Your task to perform on an android device: Add "corsair k70" to the cart on walmart, then select checkout. Image 0: 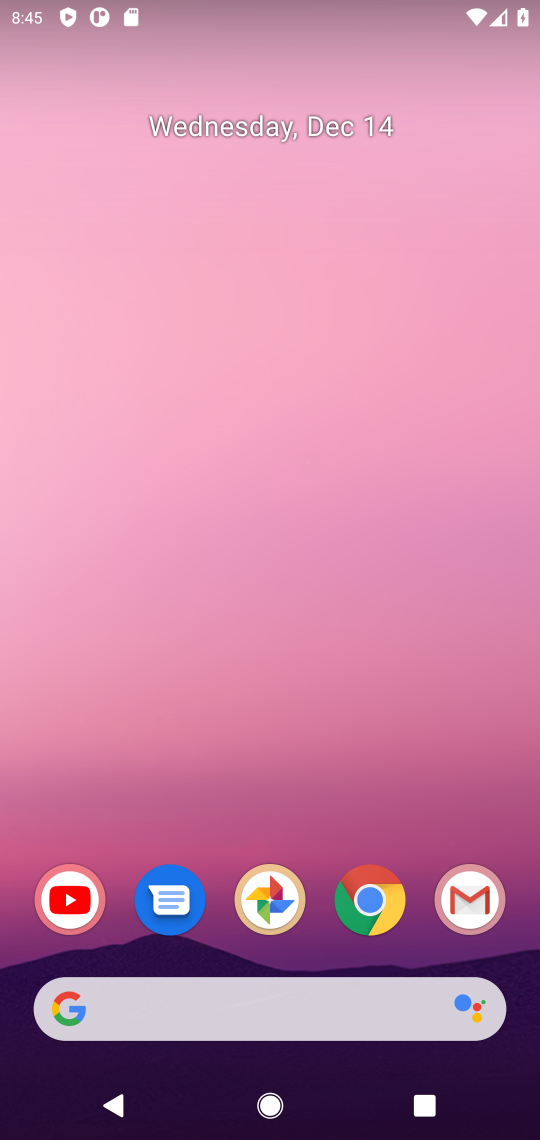
Step 0: click (247, 1014)
Your task to perform on an android device: Add "corsair k70" to the cart on walmart, then select checkout. Image 1: 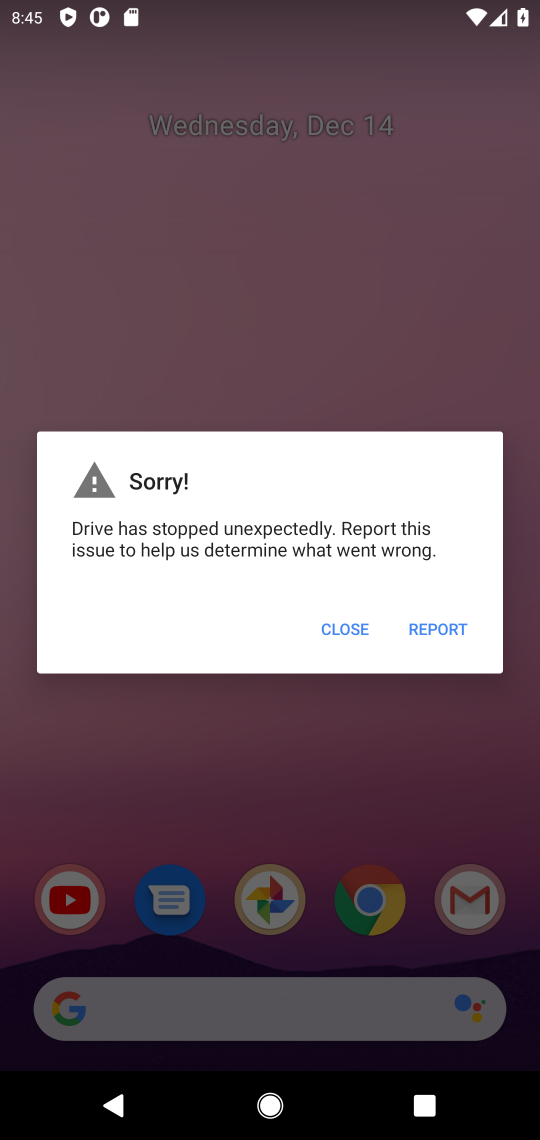
Step 1: click (319, 608)
Your task to perform on an android device: Add "corsair k70" to the cart on walmart, then select checkout. Image 2: 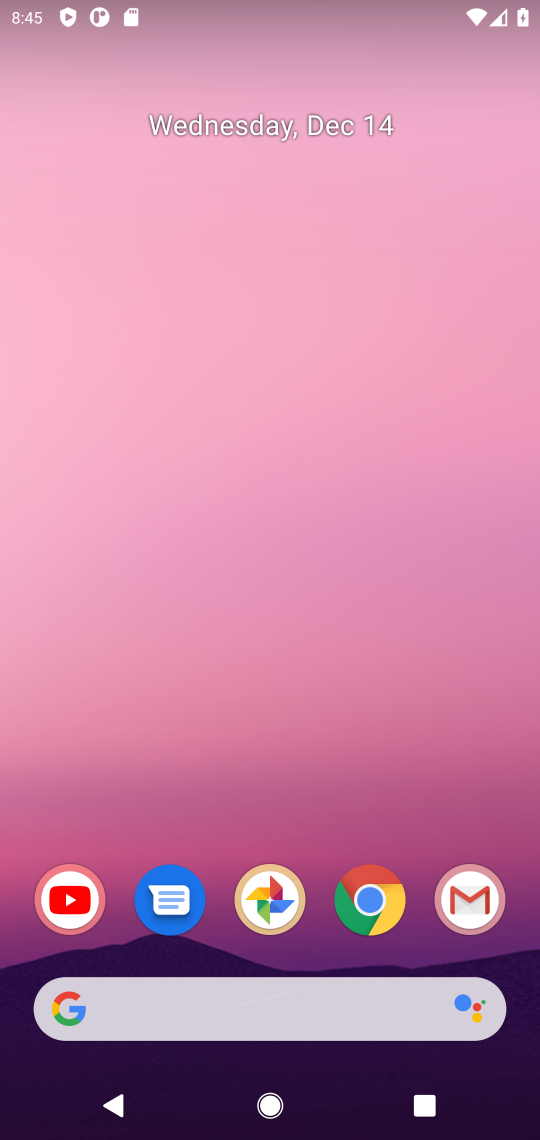
Step 2: click (288, 1026)
Your task to perform on an android device: Add "corsair k70" to the cart on walmart, then select checkout. Image 3: 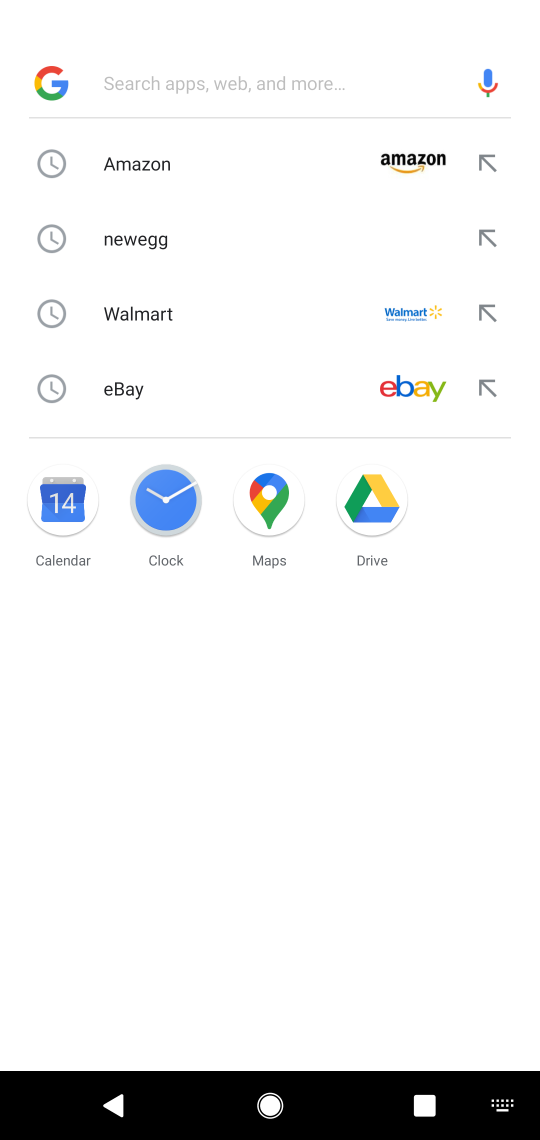
Step 3: click (137, 320)
Your task to perform on an android device: Add "corsair k70" to the cart on walmart, then select checkout. Image 4: 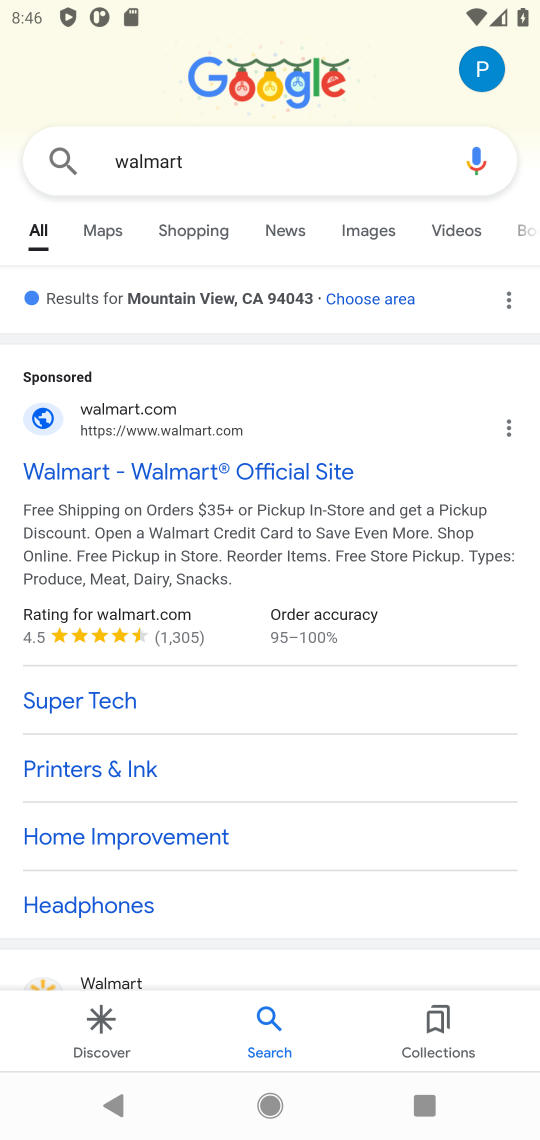
Step 4: click (165, 474)
Your task to perform on an android device: Add "corsair k70" to the cart on walmart, then select checkout. Image 5: 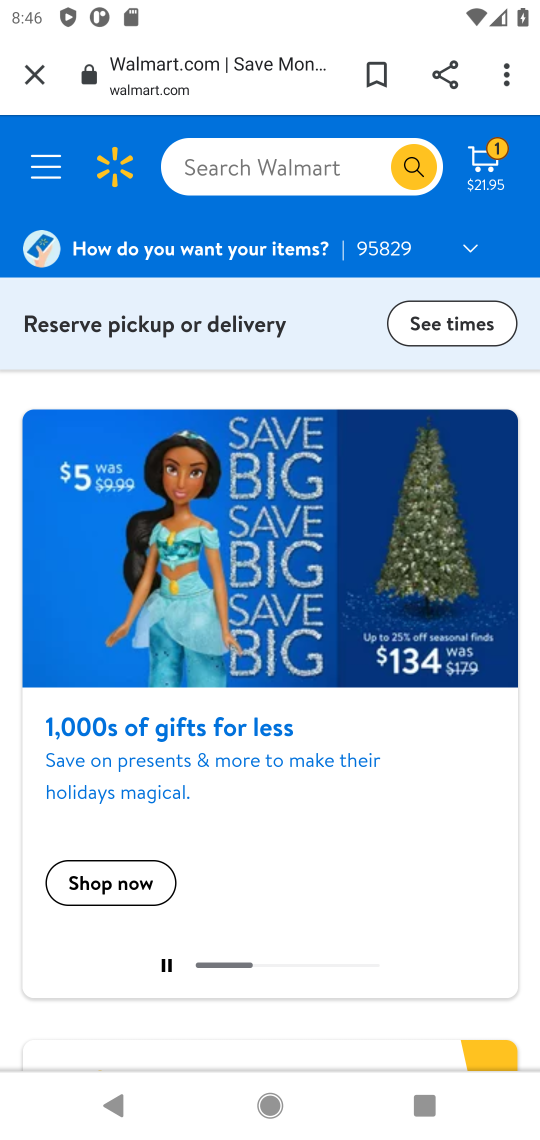
Step 5: click (243, 171)
Your task to perform on an android device: Add "corsair k70" to the cart on walmart, then select checkout. Image 6: 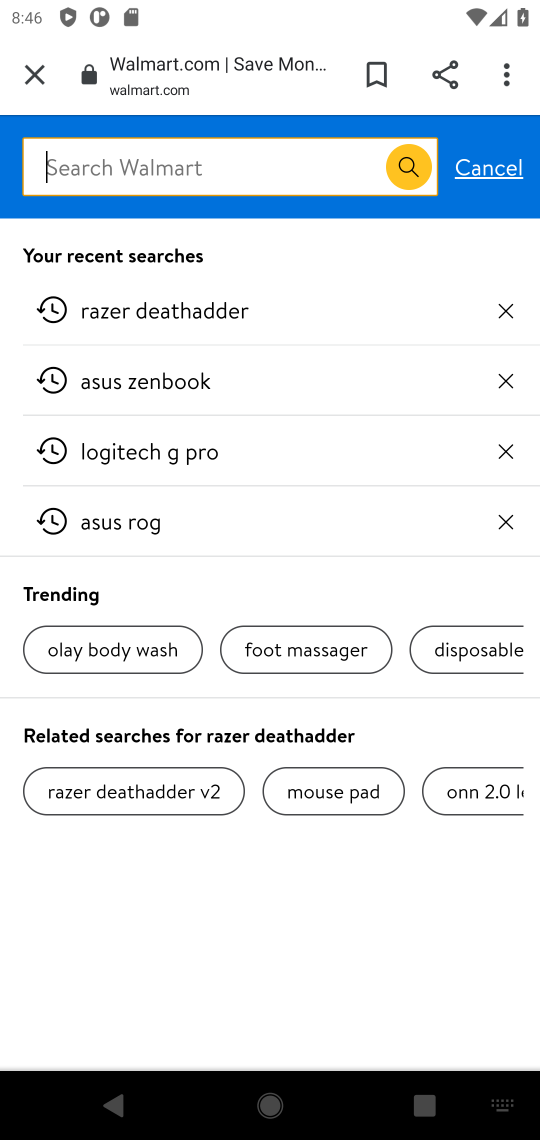
Step 6: type "corsair k70""
Your task to perform on an android device: Add "corsair k70" to the cart on walmart, then select checkout. Image 7: 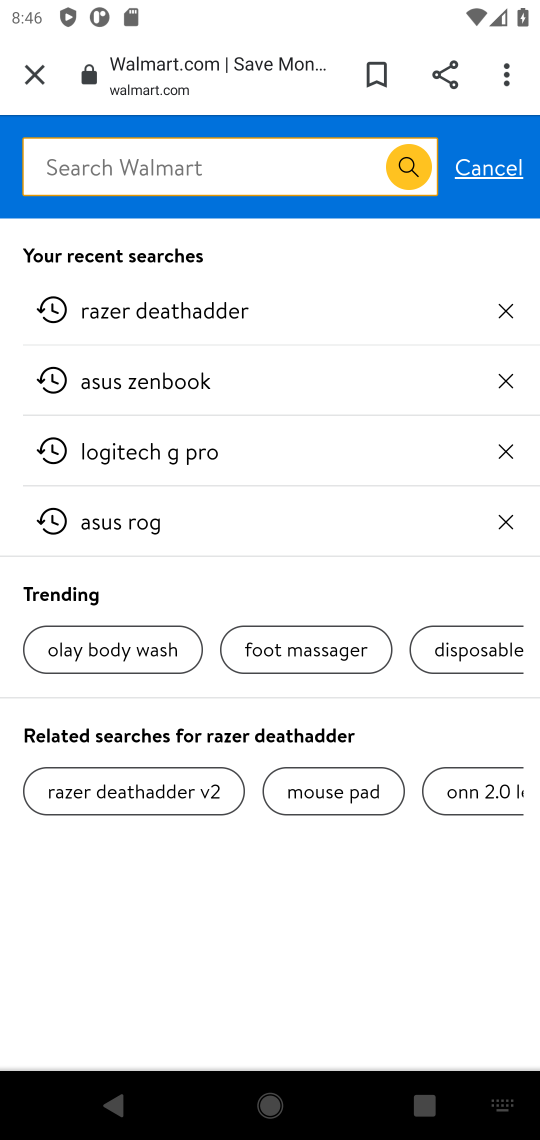
Step 7: type ""
Your task to perform on an android device: Add "corsair k70" to the cart on walmart, then select checkout. Image 8: 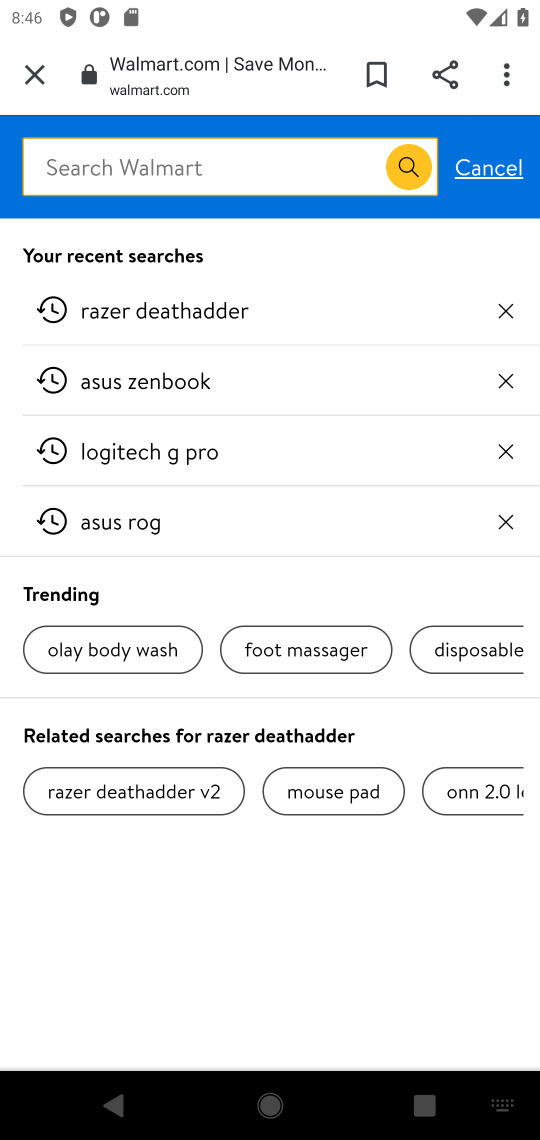
Step 8: drag from (342, 1003) to (340, 503)
Your task to perform on an android device: Add "corsair k70" to the cart on walmart, then select checkout. Image 9: 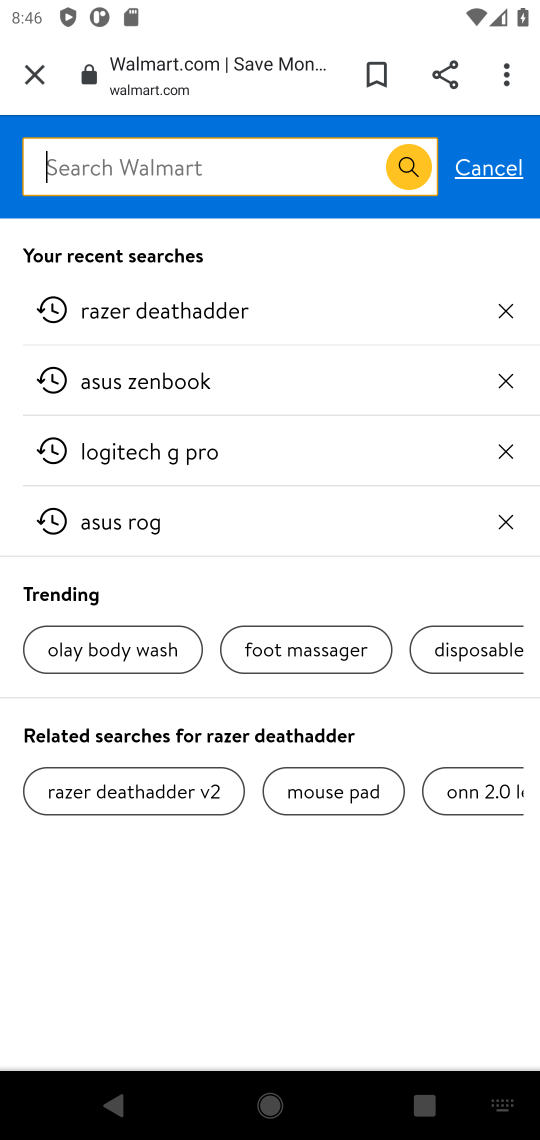
Step 9: click (179, 182)
Your task to perform on an android device: Add "corsair k70" to the cart on walmart, then select checkout. Image 10: 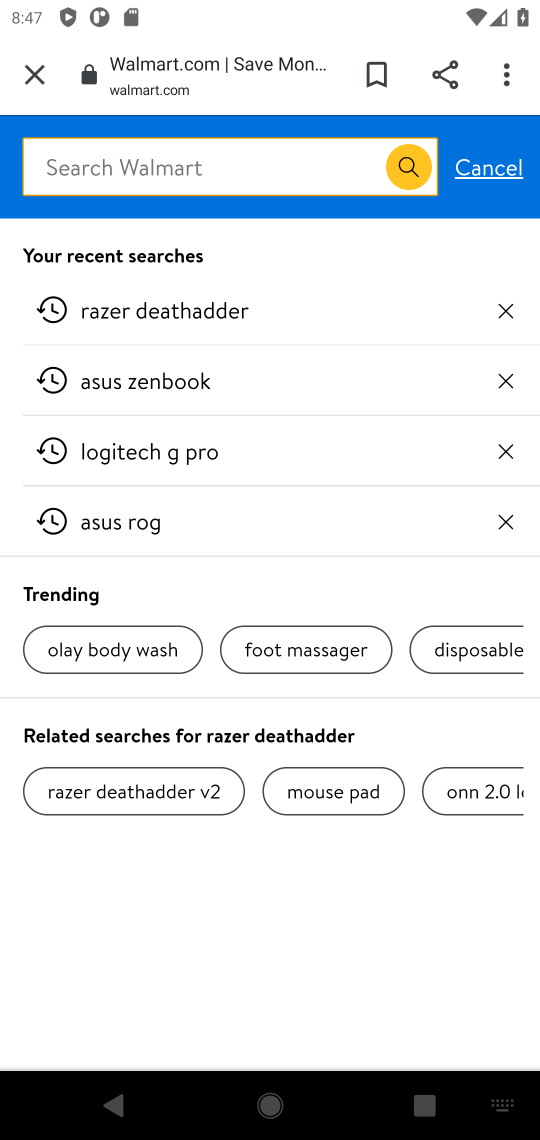
Step 10: type "corsair k70""
Your task to perform on an android device: Add "corsair k70" to the cart on walmart, then select checkout. Image 11: 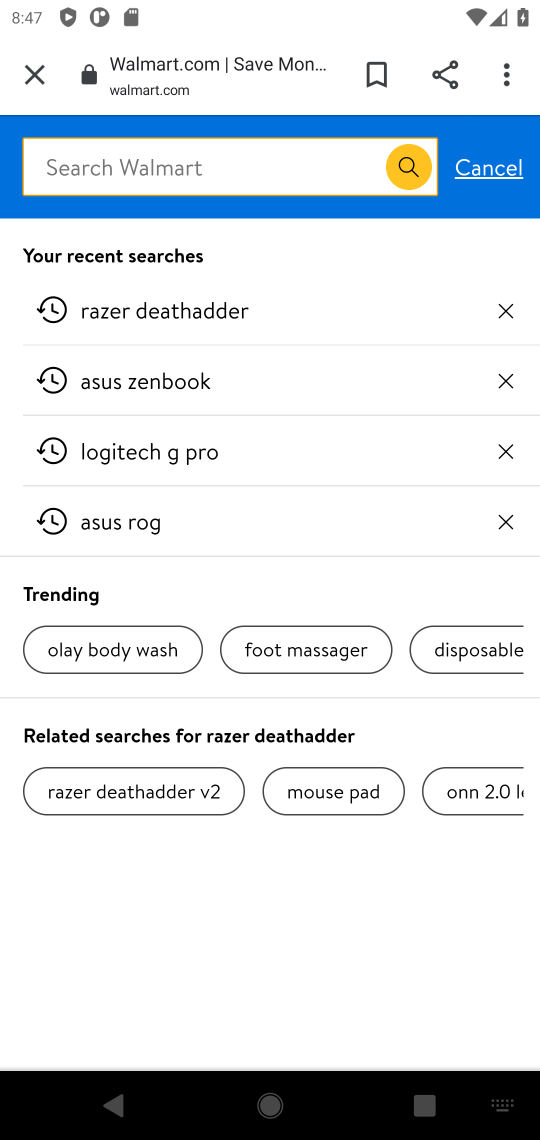
Step 11: type ""
Your task to perform on an android device: Add "corsair k70" to the cart on walmart, then select checkout. Image 12: 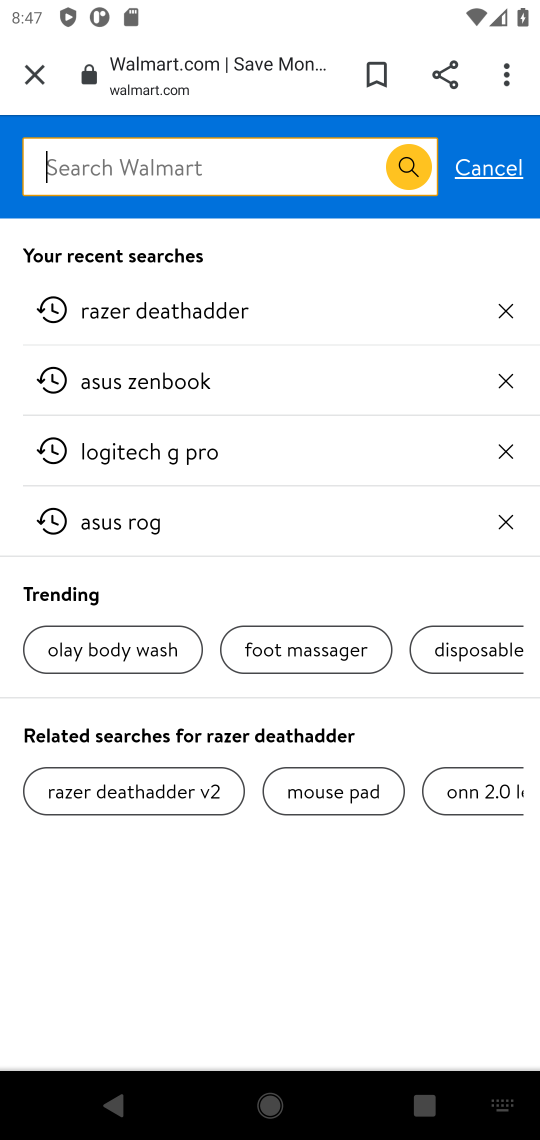
Step 12: click (175, 174)
Your task to perform on an android device: Add "corsair k70" to the cart on walmart, then select checkout. Image 13: 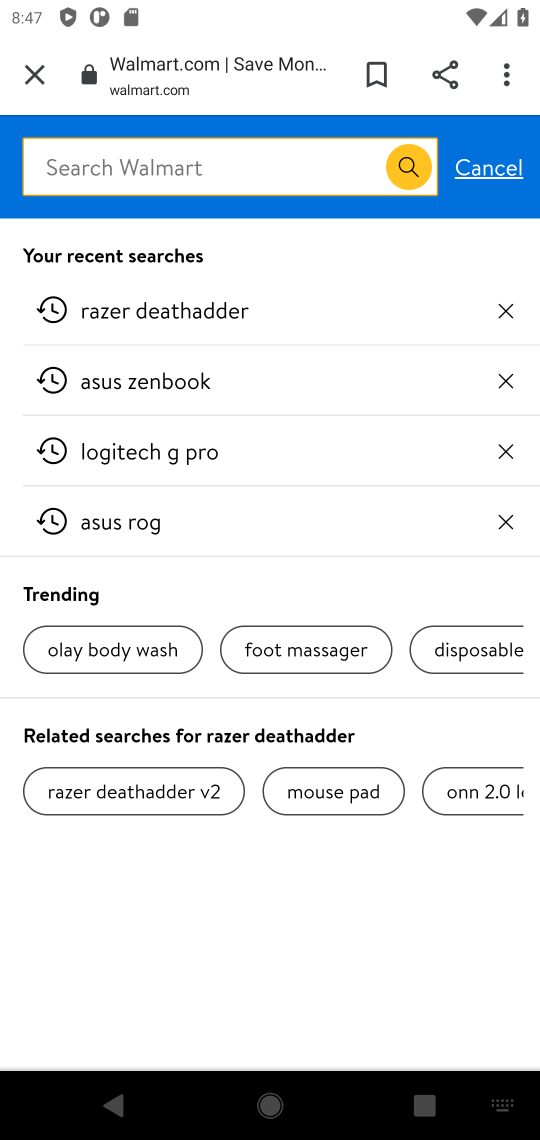
Step 13: type "corsair k70""
Your task to perform on an android device: Add "corsair k70" to the cart on walmart, then select checkout. Image 14: 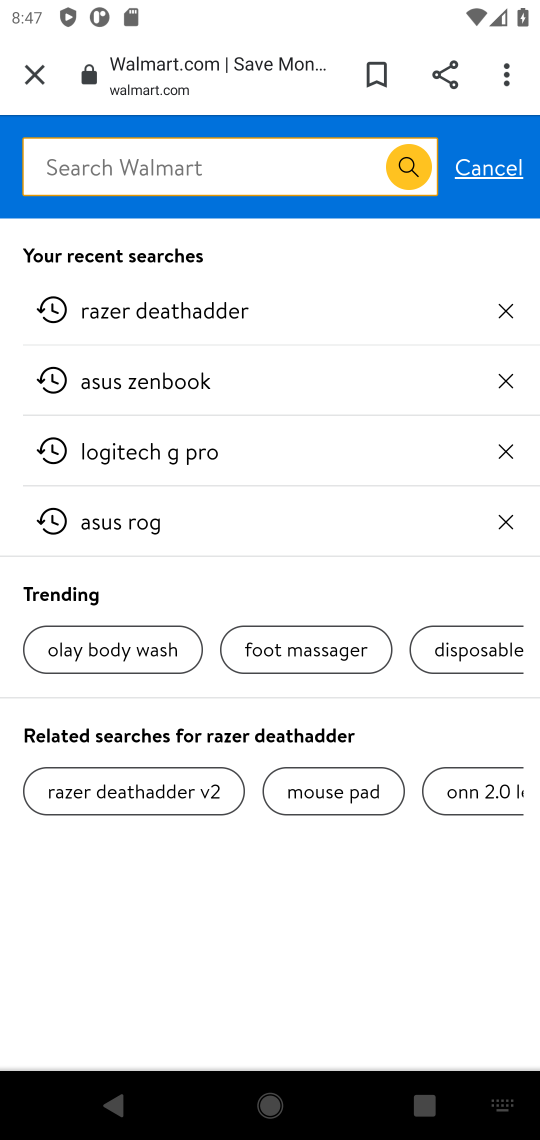
Step 14: type ""
Your task to perform on an android device: Add "corsair k70" to the cart on walmart, then select checkout. Image 15: 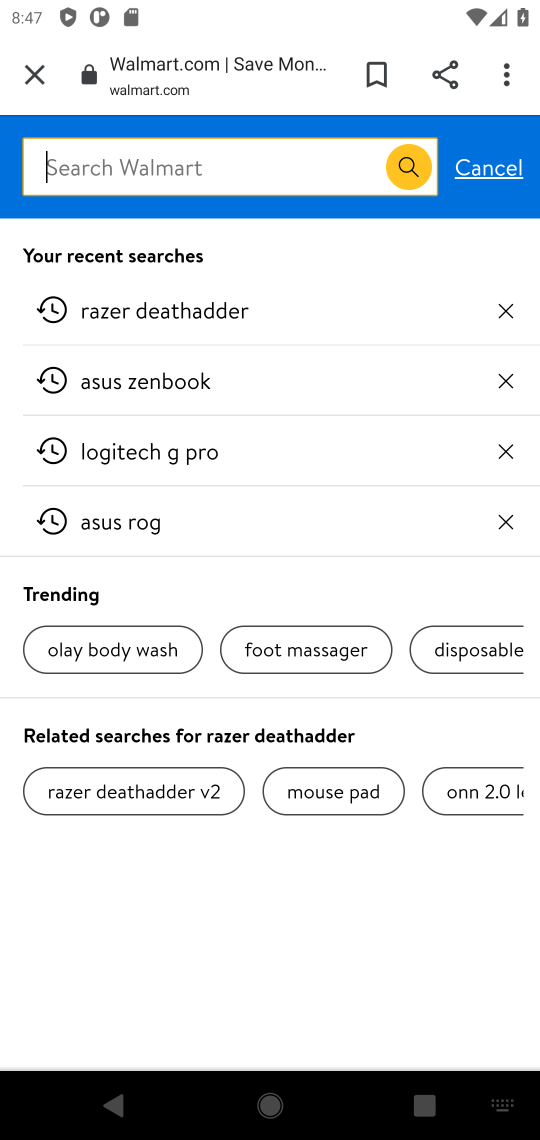
Step 15: press home button
Your task to perform on an android device: Add "corsair k70" to the cart on walmart, then select checkout. Image 16: 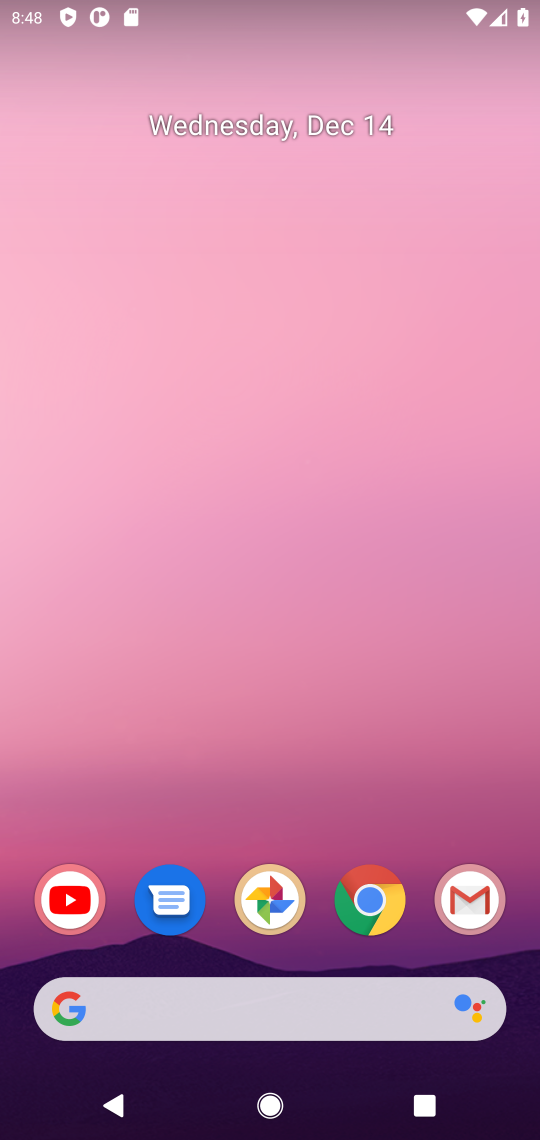
Step 16: click (199, 1005)
Your task to perform on an android device: Add "corsair k70" to the cart on walmart, then select checkout. Image 17: 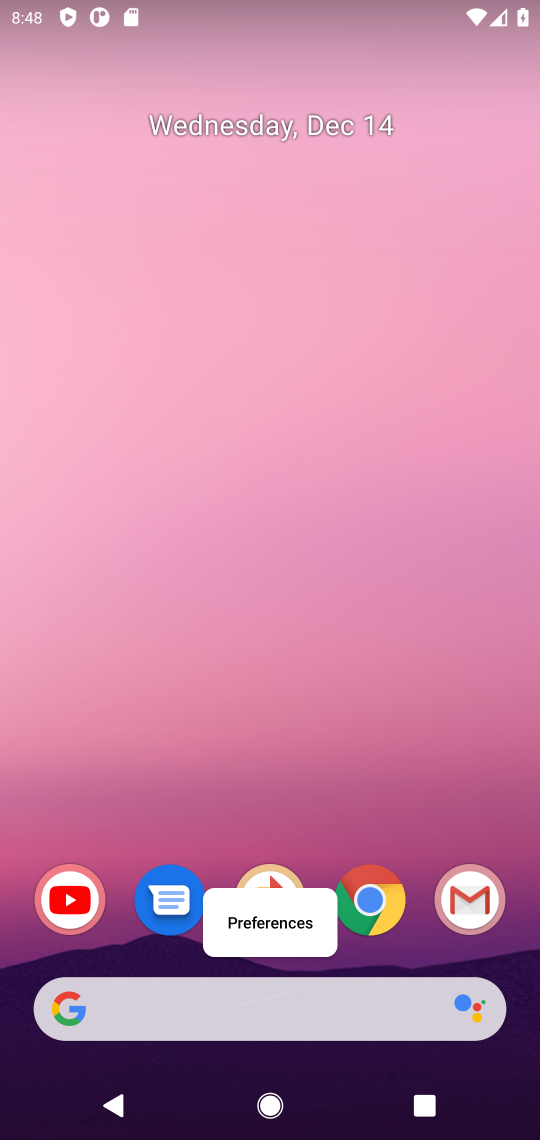
Step 17: click (423, 1051)
Your task to perform on an android device: Add "corsair k70" to the cart on walmart, then select checkout. Image 18: 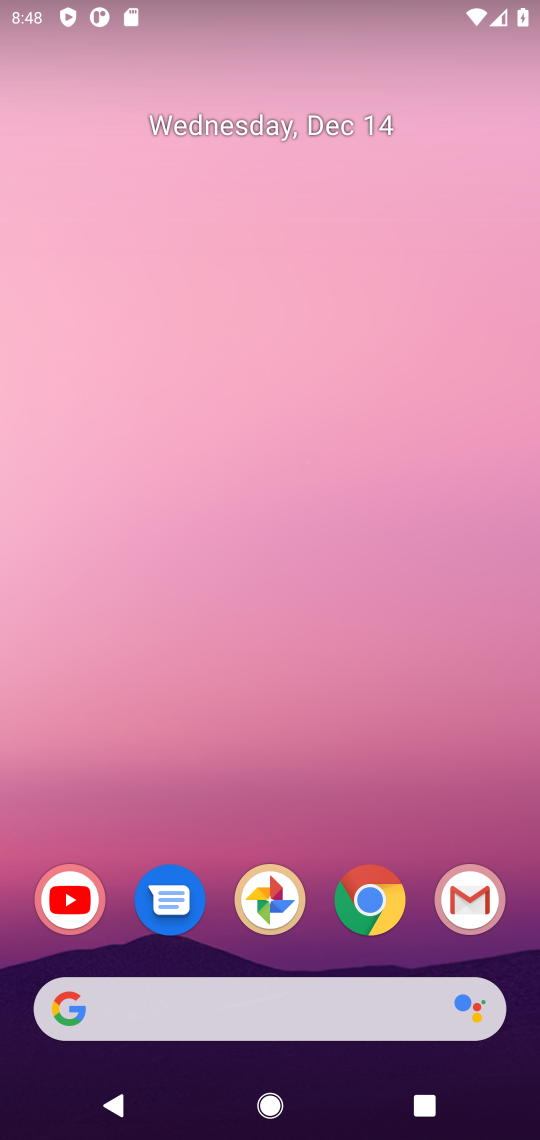
Step 18: click (242, 1001)
Your task to perform on an android device: Add "corsair k70" to the cart on walmart, then select checkout. Image 19: 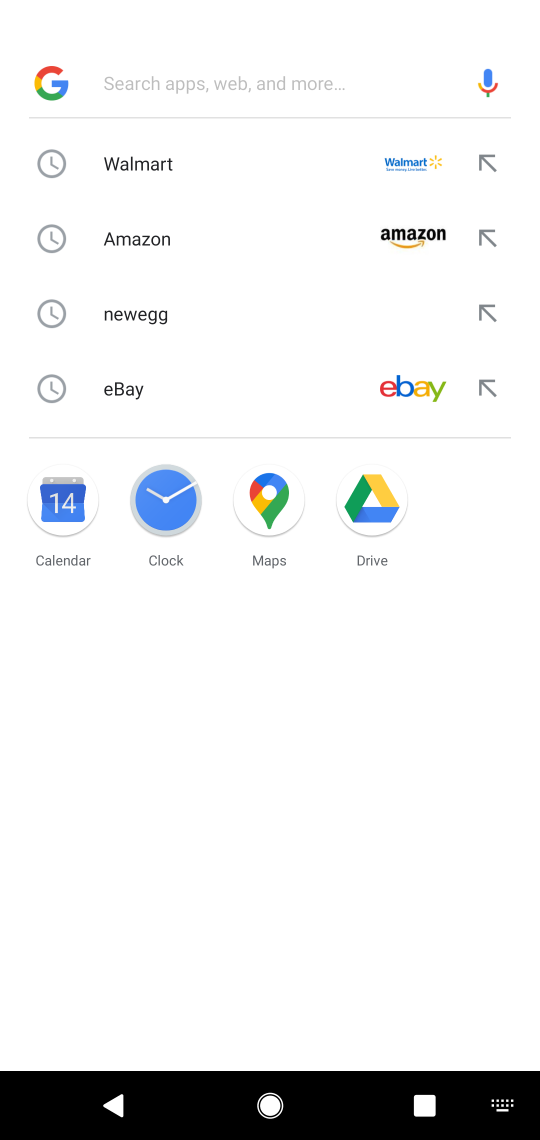
Step 19: type "walmart"
Your task to perform on an android device: Add "corsair k70" to the cart on walmart, then select checkout. Image 20: 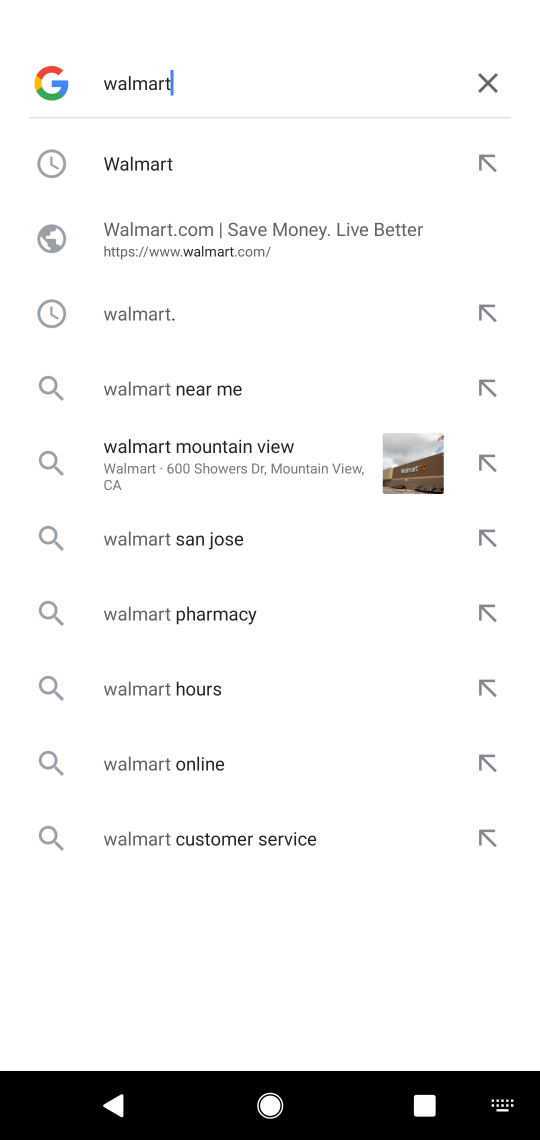
Step 20: type ""
Your task to perform on an android device: Add "corsair k70" to the cart on walmart, then select checkout. Image 21: 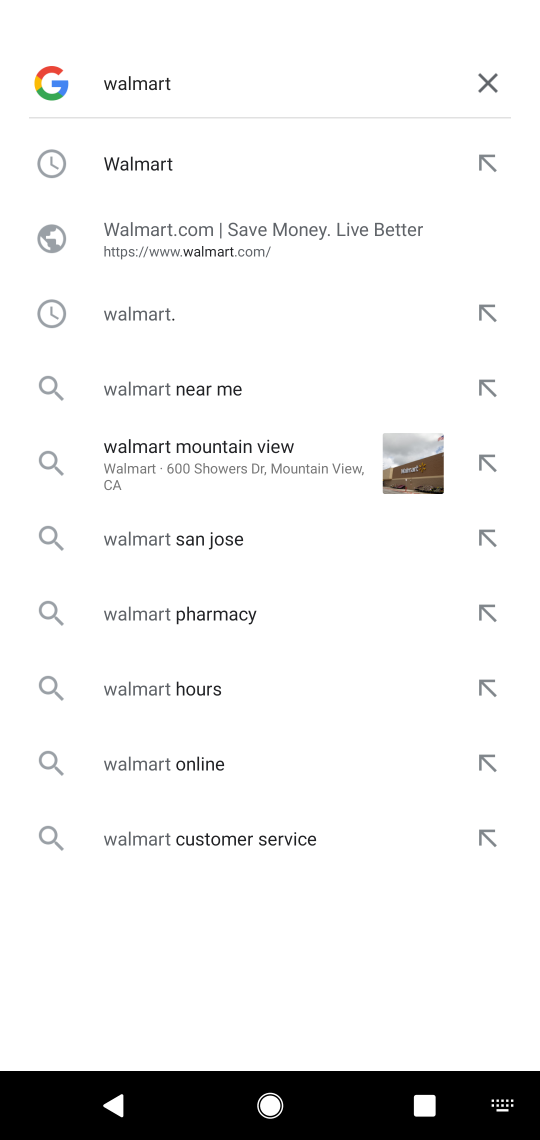
Step 21: click (145, 171)
Your task to perform on an android device: Add "corsair k70" to the cart on walmart, then select checkout. Image 22: 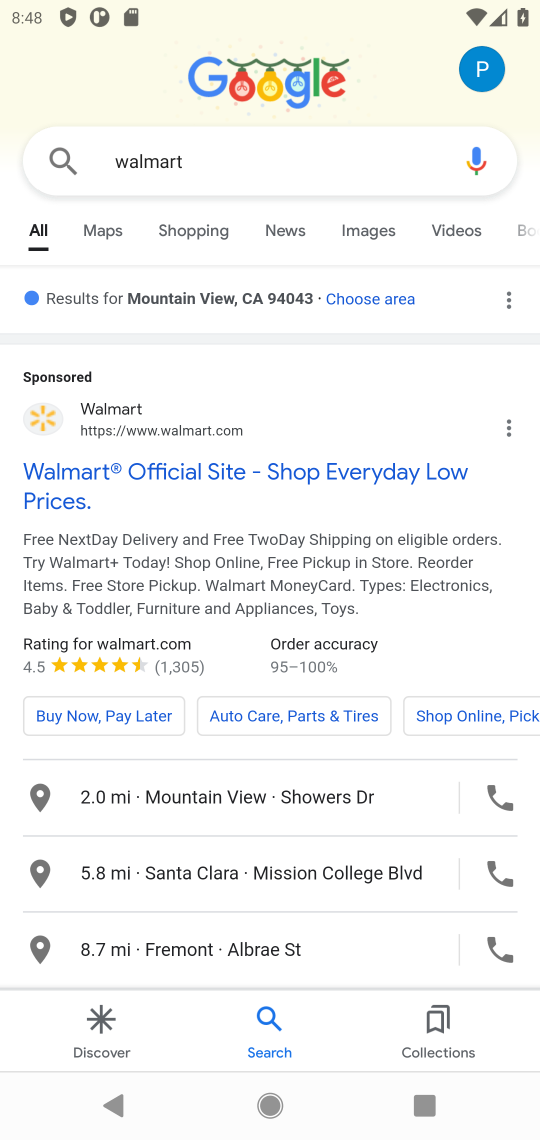
Step 22: click (135, 504)
Your task to perform on an android device: Add "corsair k70" to the cart on walmart, then select checkout. Image 23: 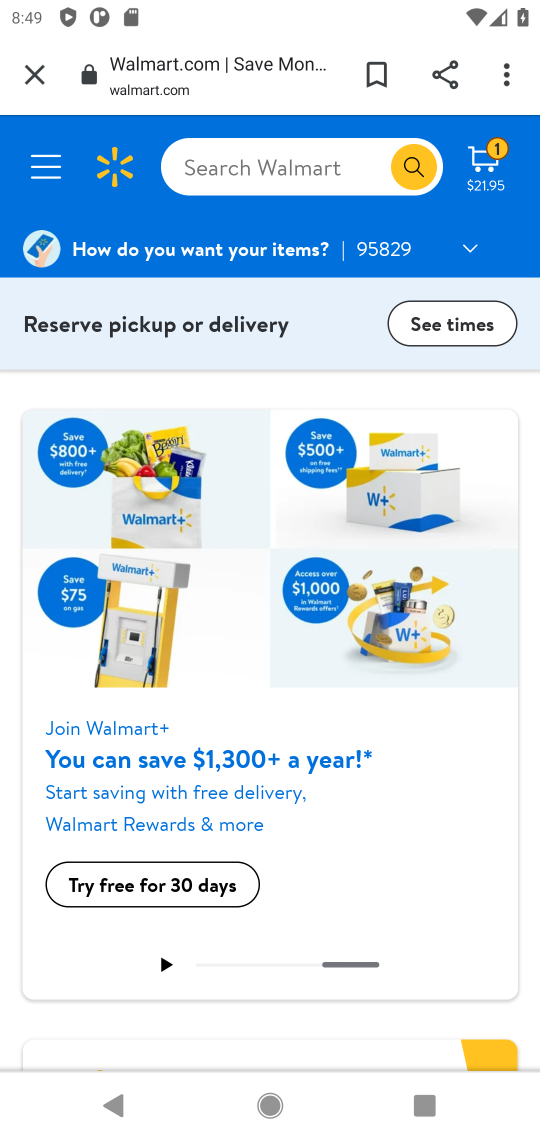
Step 23: click (239, 164)
Your task to perform on an android device: Add "corsair k70" to the cart on walmart, then select checkout. Image 24: 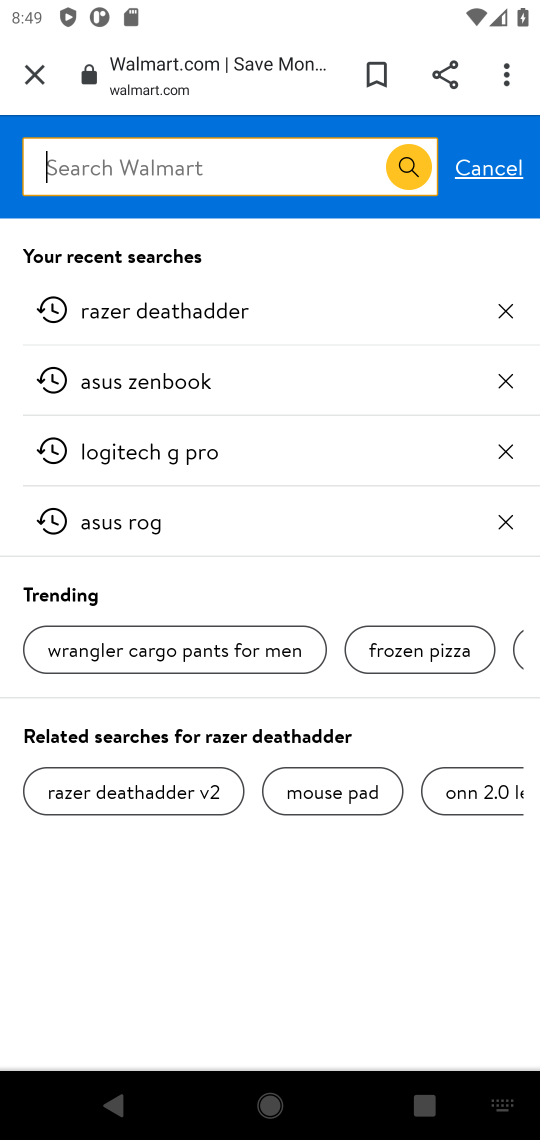
Step 24: type "walmart"
Your task to perform on an android device: Add "corsair k70" to the cart on walmart, then select checkout. Image 25: 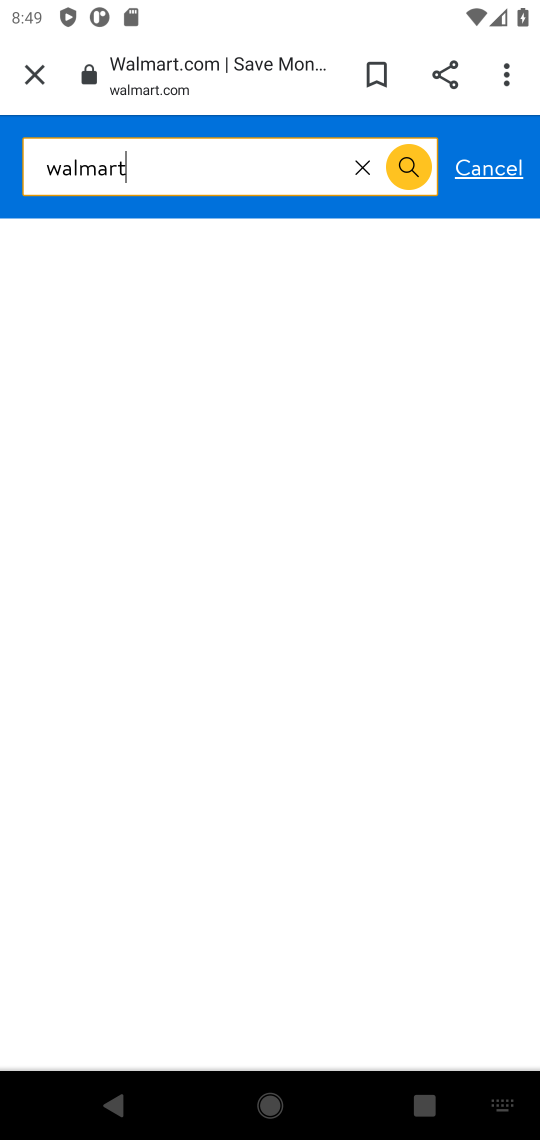
Step 25: type ""
Your task to perform on an android device: Add "corsair k70" to the cart on walmart, then select checkout. Image 26: 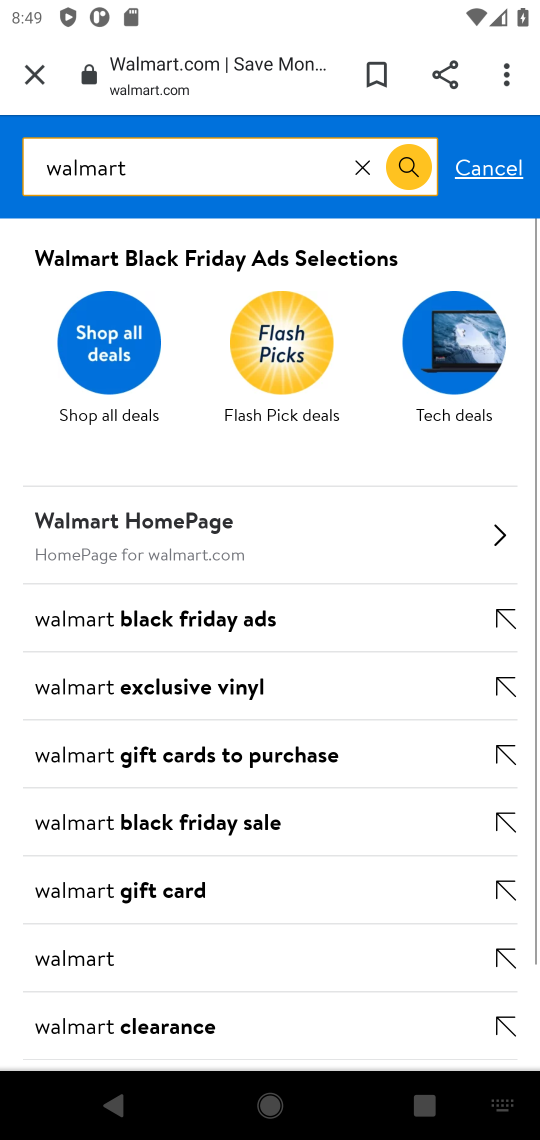
Step 26: click (347, 171)
Your task to perform on an android device: Add "corsair k70" to the cart on walmart, then select checkout. Image 27: 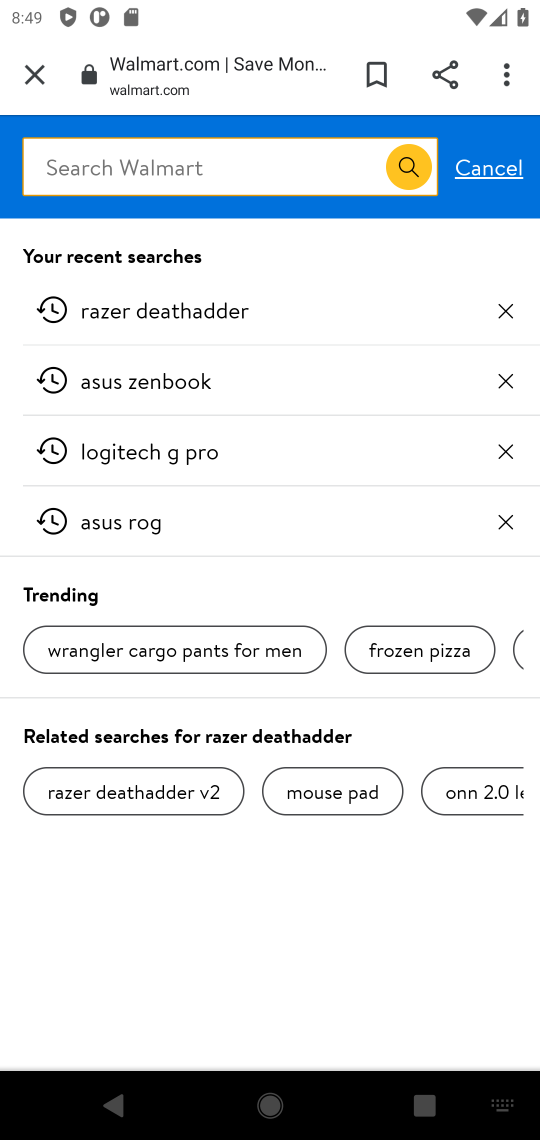
Step 27: type "corsair k70"
Your task to perform on an android device: Add "corsair k70" to the cart on walmart, then select checkout. Image 28: 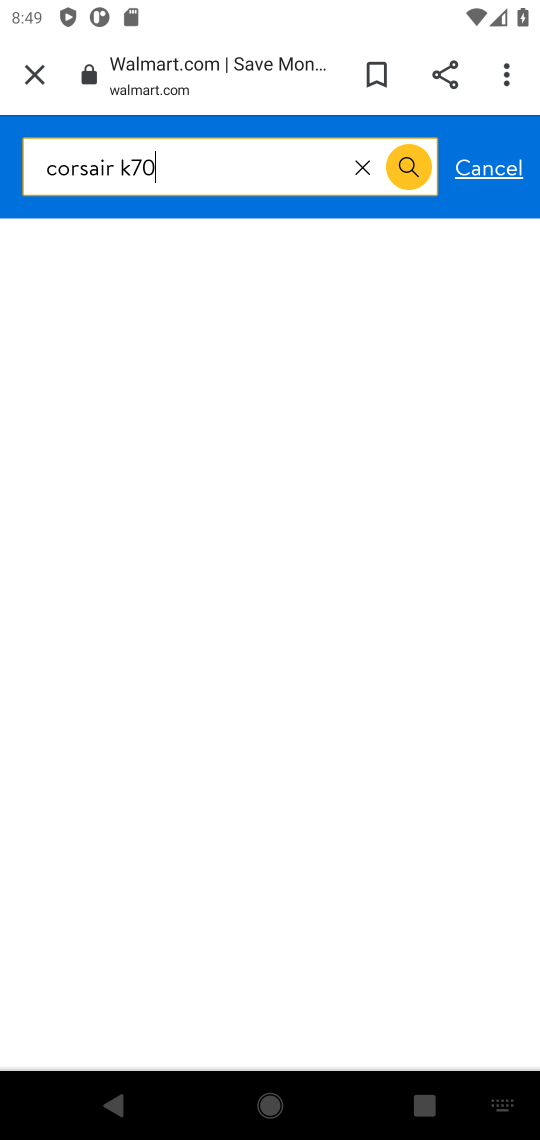
Step 28: type ""
Your task to perform on an android device: Add "corsair k70" to the cart on walmart, then select checkout. Image 29: 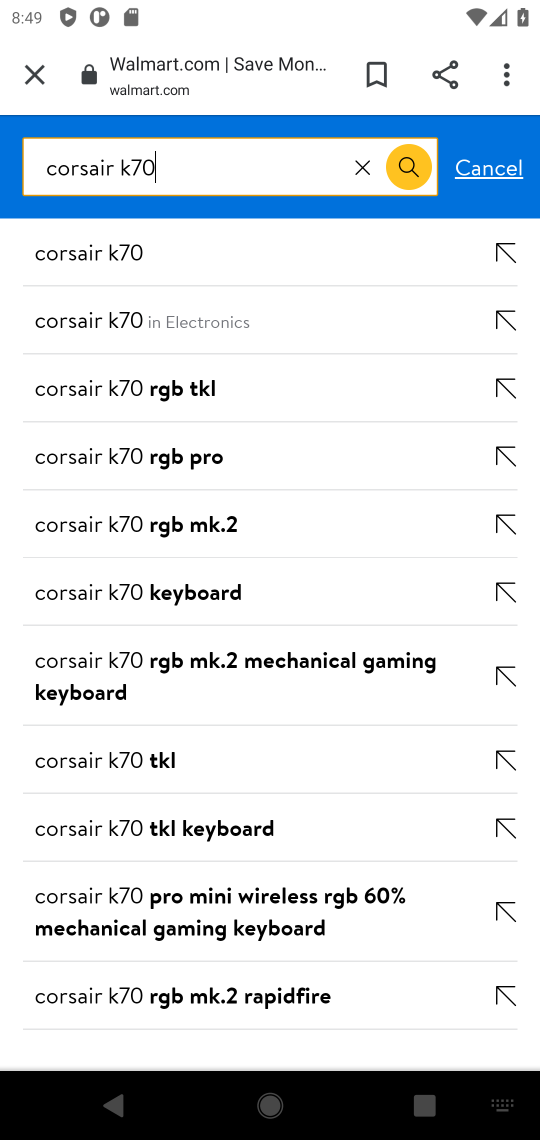
Step 29: click (402, 190)
Your task to perform on an android device: Add "corsair k70" to the cart on walmart, then select checkout. Image 30: 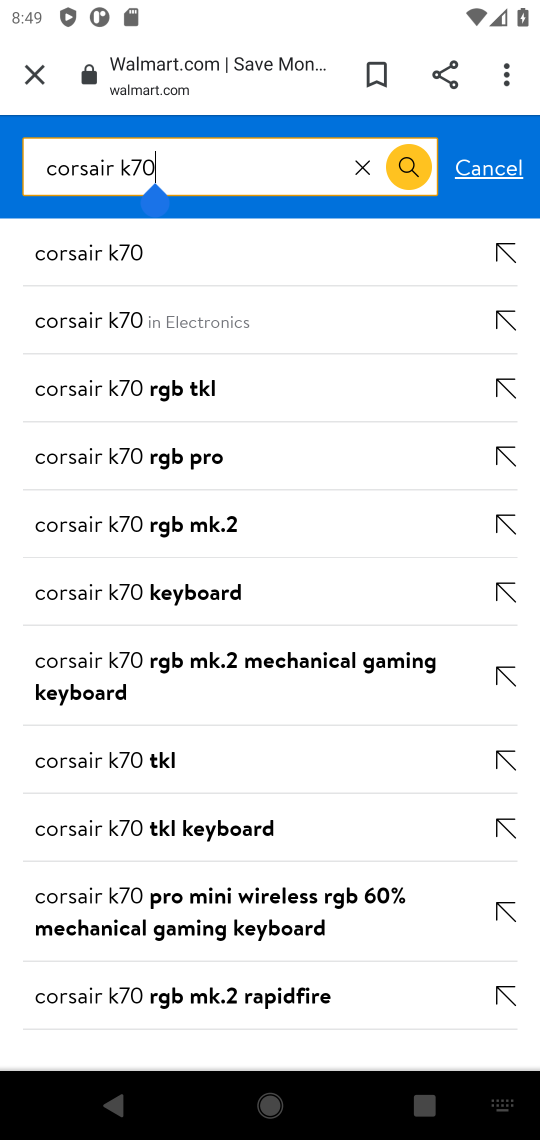
Step 30: click (90, 248)
Your task to perform on an android device: Add "corsair k70" to the cart on walmart, then select checkout. Image 31: 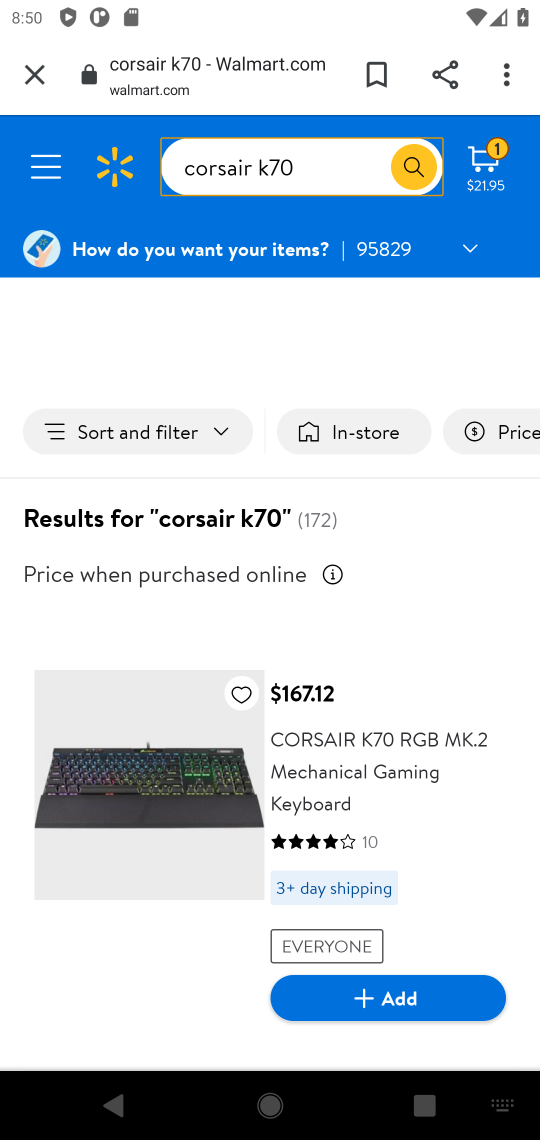
Step 31: click (375, 997)
Your task to perform on an android device: Add "corsair k70" to the cart on walmart, then select checkout. Image 32: 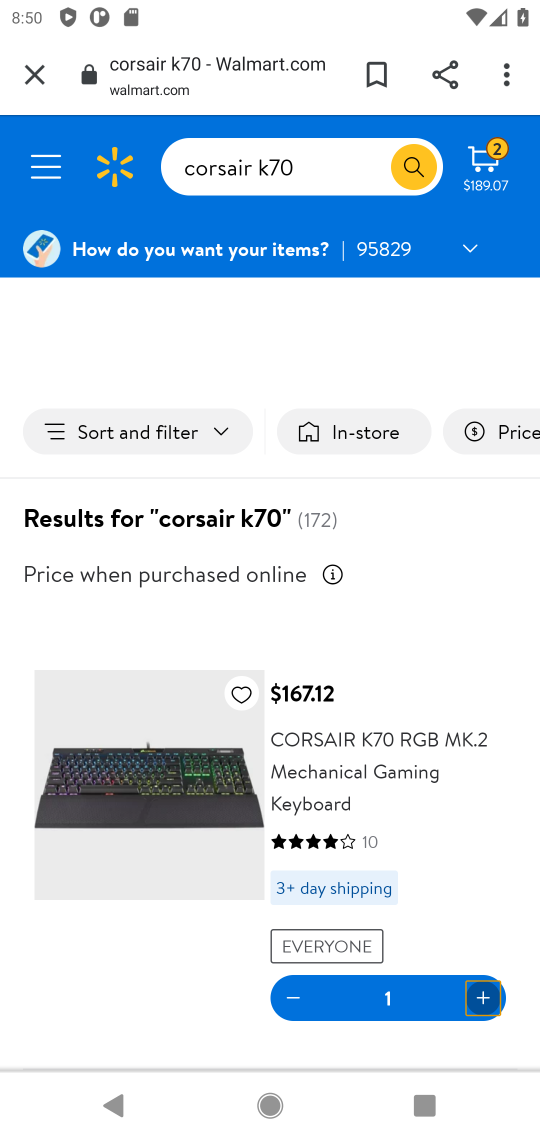
Step 32: task complete